Your task to perform on an android device: Search for "lenovo thinkpad" on amazon, select the first entry, add it to the cart, then select checkout. Image 0: 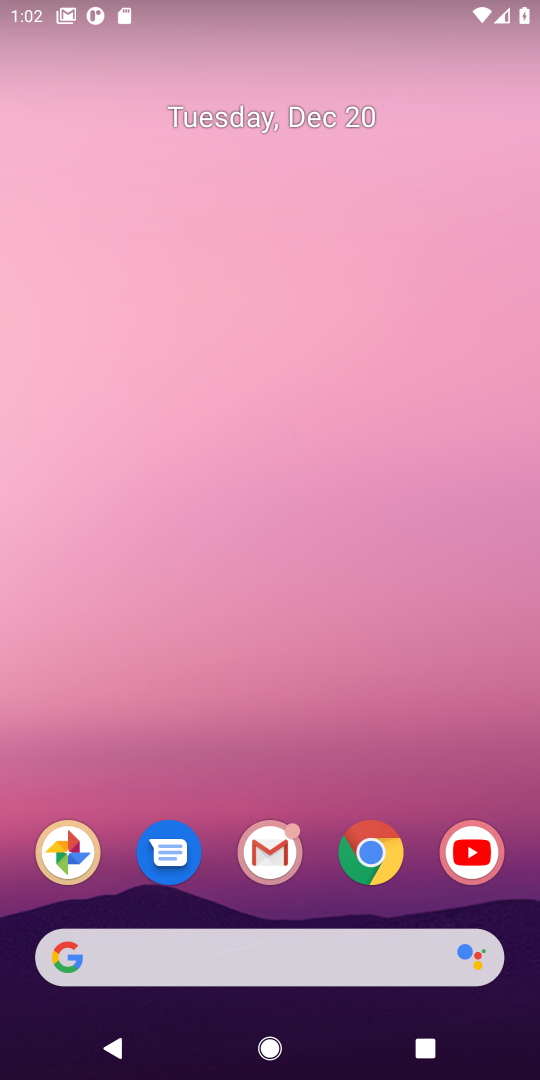
Step 0: click (365, 857)
Your task to perform on an android device: Search for "lenovo thinkpad" on amazon, select the first entry, add it to the cart, then select checkout. Image 1: 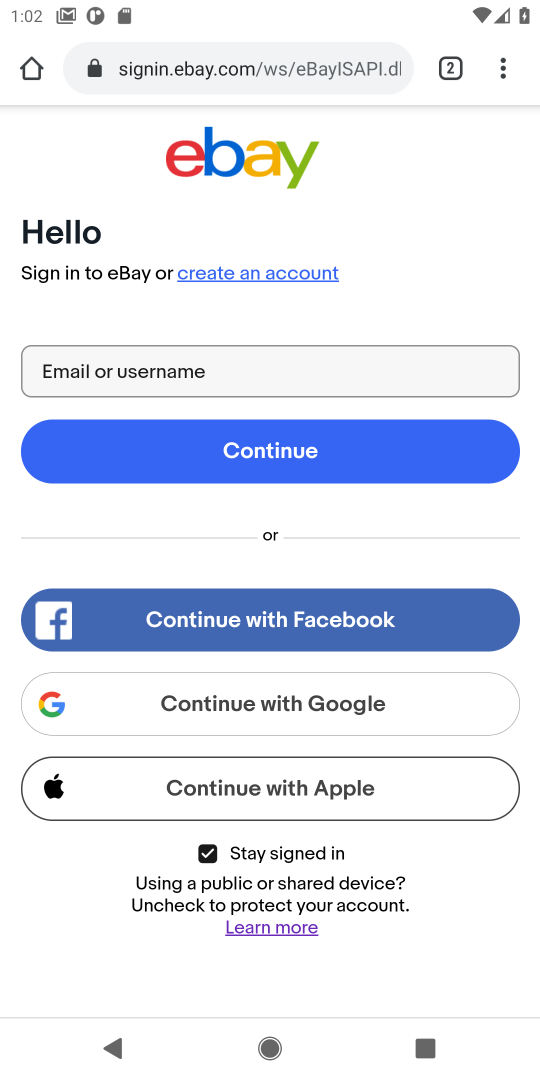
Step 1: click (182, 69)
Your task to perform on an android device: Search for "lenovo thinkpad" on amazon, select the first entry, add it to the cart, then select checkout. Image 2: 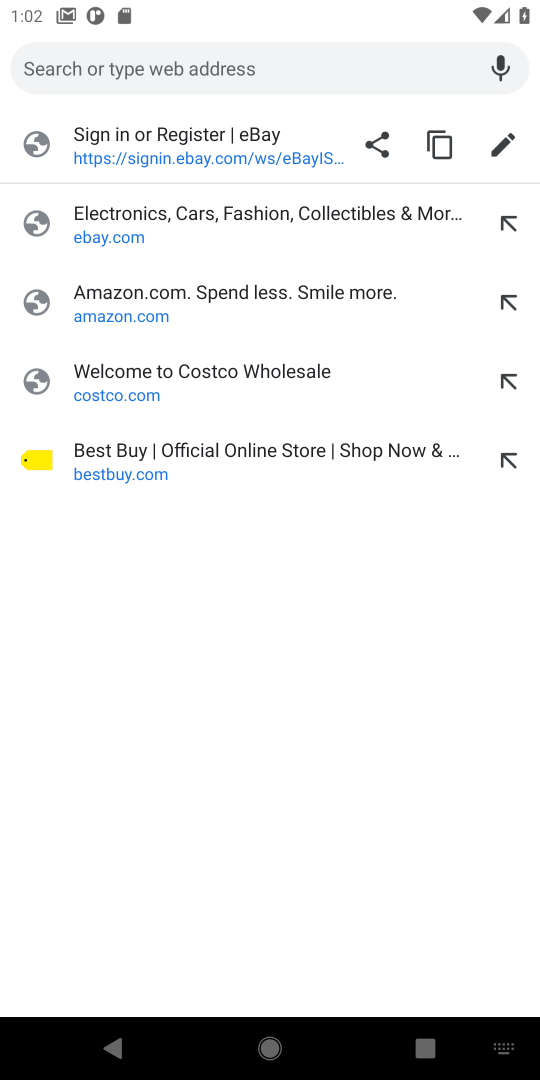
Step 2: click (86, 304)
Your task to perform on an android device: Search for "lenovo thinkpad" on amazon, select the first entry, add it to the cart, then select checkout. Image 3: 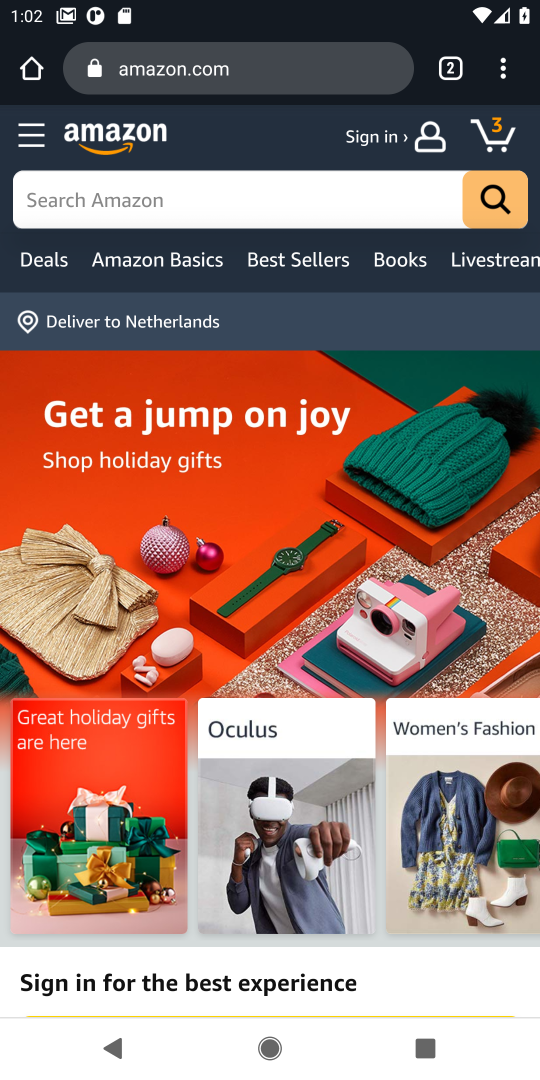
Step 3: click (51, 199)
Your task to perform on an android device: Search for "lenovo thinkpad" on amazon, select the first entry, add it to the cart, then select checkout. Image 4: 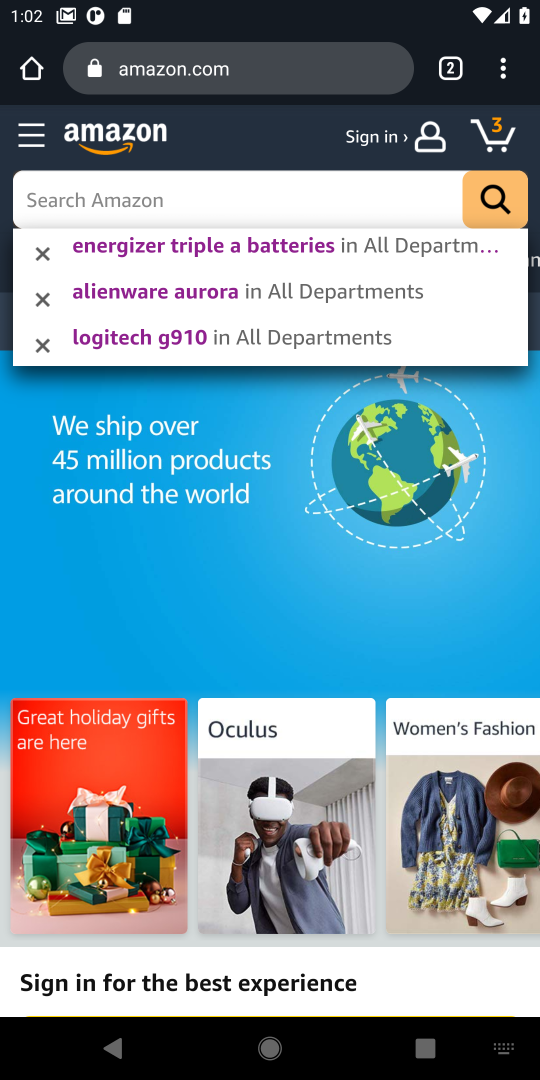
Step 4: type "lenovo thinkpad"
Your task to perform on an android device: Search for "lenovo thinkpad" on amazon, select the first entry, add it to the cart, then select checkout. Image 5: 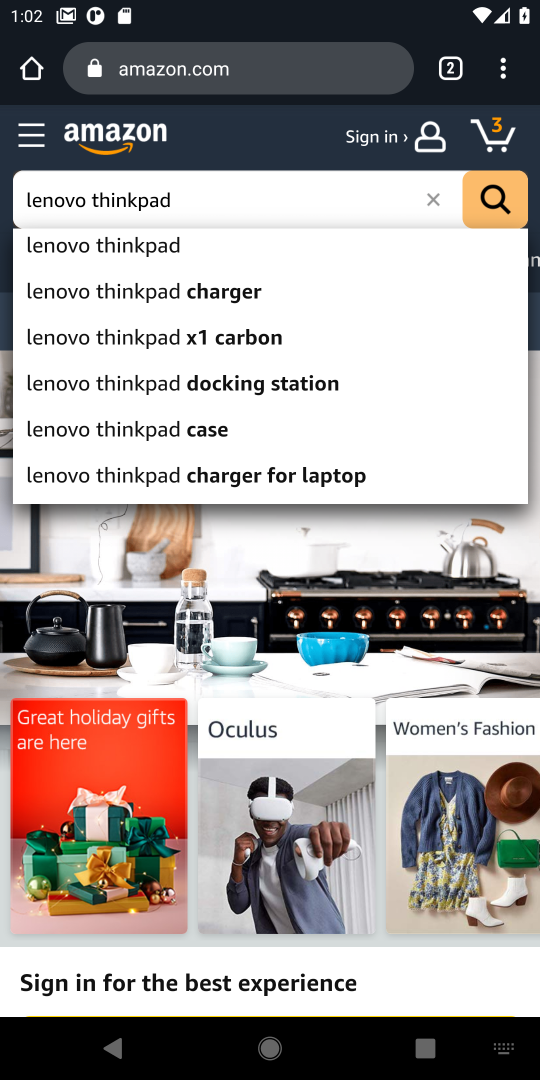
Step 5: click (84, 255)
Your task to perform on an android device: Search for "lenovo thinkpad" on amazon, select the first entry, add it to the cart, then select checkout. Image 6: 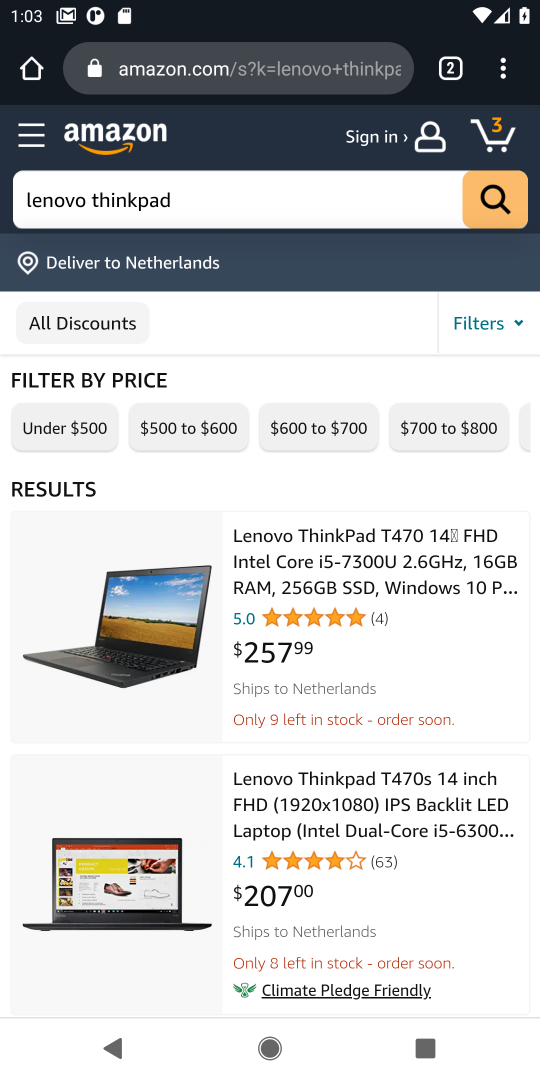
Step 6: click (330, 588)
Your task to perform on an android device: Search for "lenovo thinkpad" on amazon, select the first entry, add it to the cart, then select checkout. Image 7: 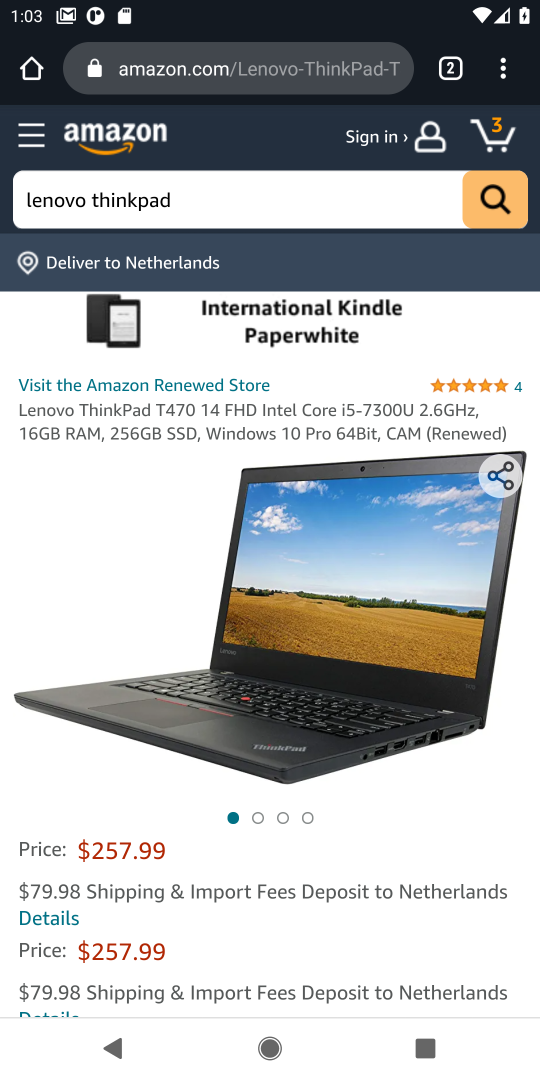
Step 7: drag from (296, 885) to (303, 496)
Your task to perform on an android device: Search for "lenovo thinkpad" on amazon, select the first entry, add it to the cart, then select checkout. Image 8: 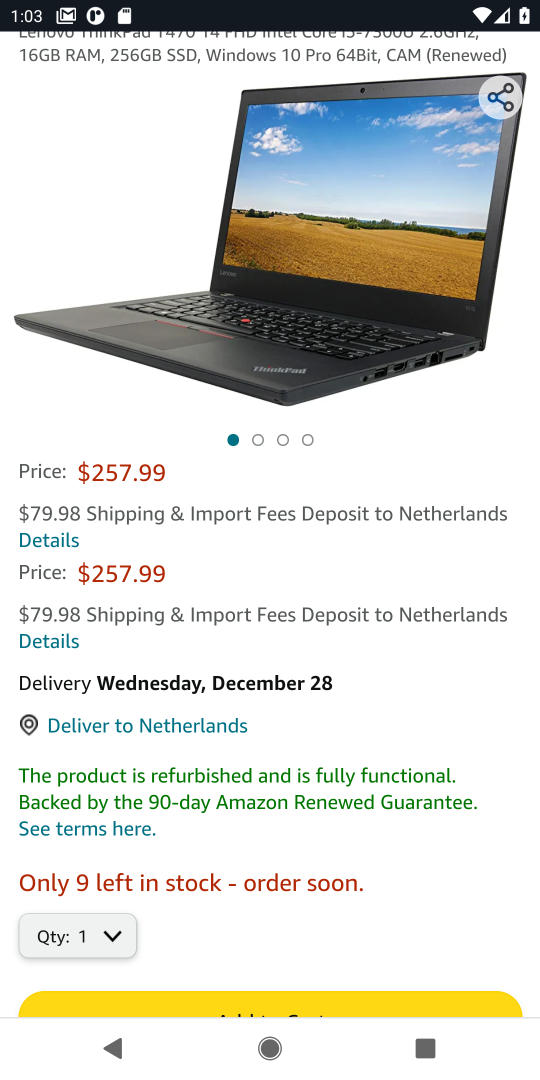
Step 8: drag from (315, 835) to (308, 563)
Your task to perform on an android device: Search for "lenovo thinkpad" on amazon, select the first entry, add it to the cart, then select checkout. Image 9: 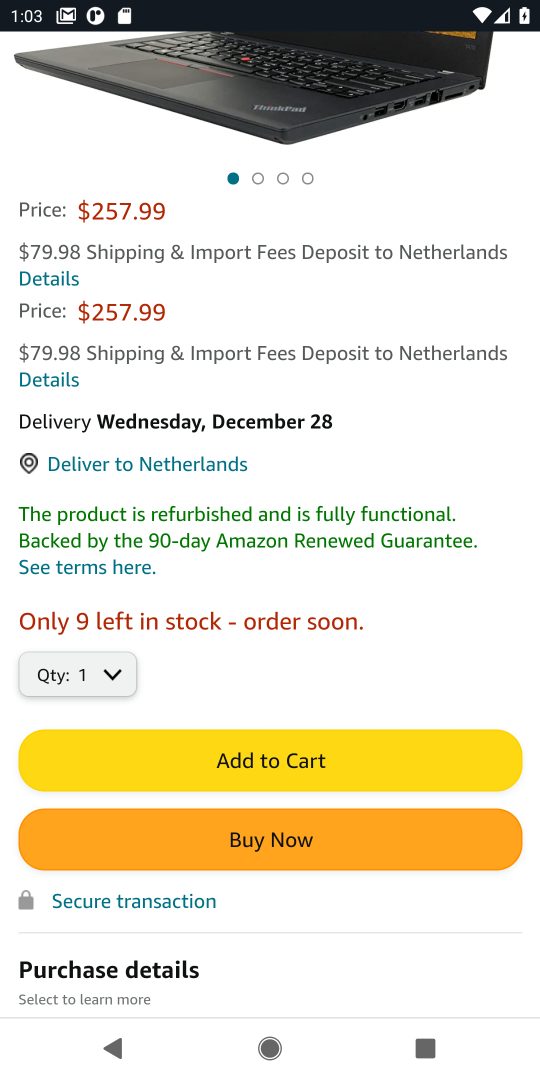
Step 9: click (235, 760)
Your task to perform on an android device: Search for "lenovo thinkpad" on amazon, select the first entry, add it to the cart, then select checkout. Image 10: 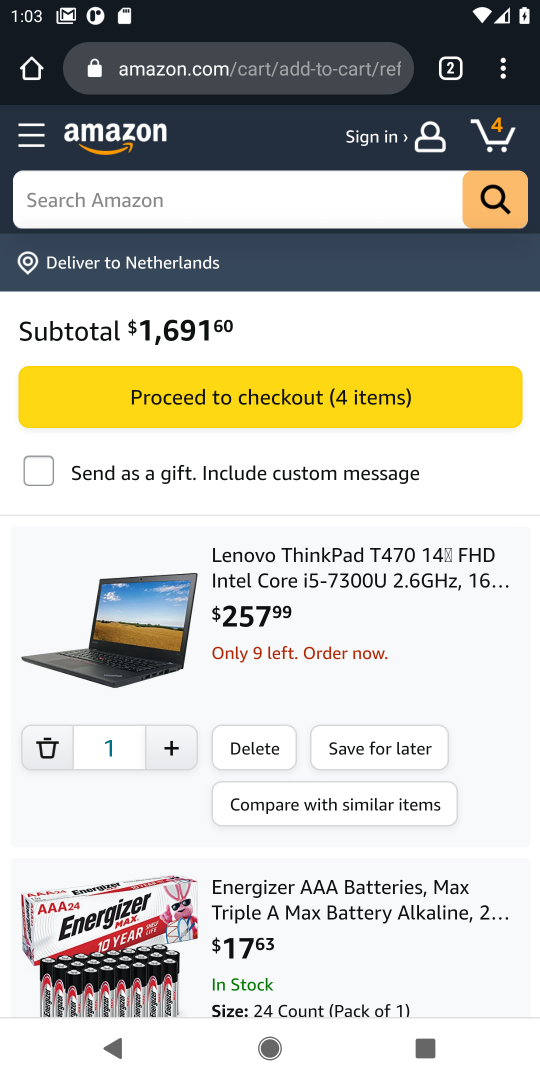
Step 10: click (243, 399)
Your task to perform on an android device: Search for "lenovo thinkpad" on amazon, select the first entry, add it to the cart, then select checkout. Image 11: 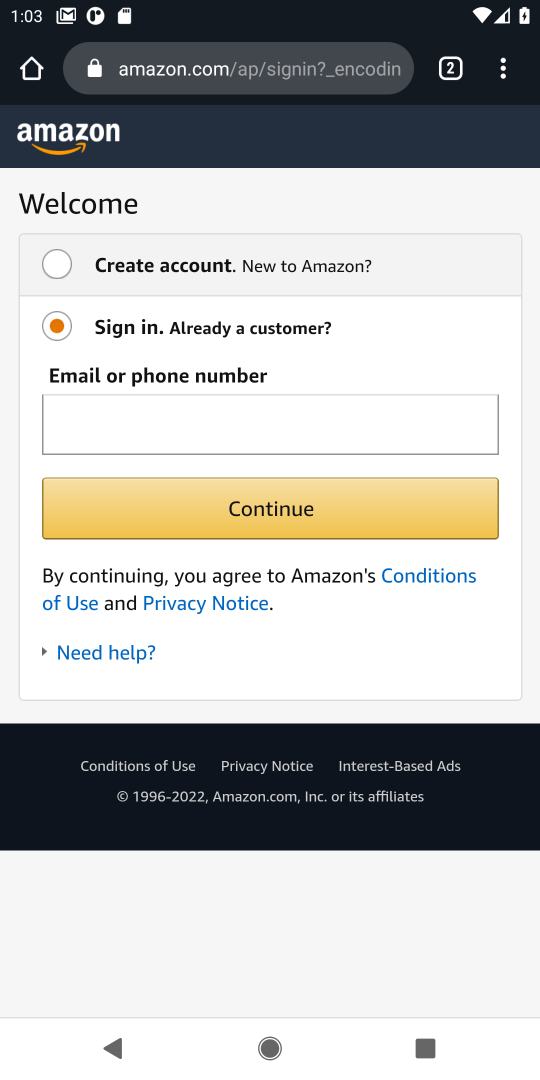
Step 11: task complete